Your task to perform on an android device: Open Google Maps and go to "Timeline" Image 0: 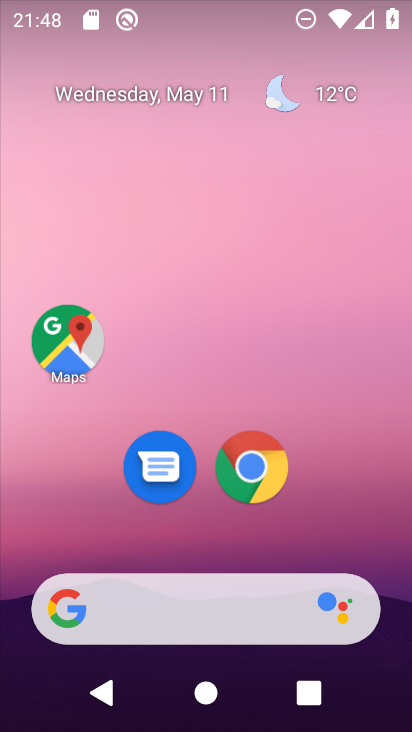
Step 0: drag from (211, 508) to (240, 80)
Your task to perform on an android device: Open Google Maps and go to "Timeline" Image 1: 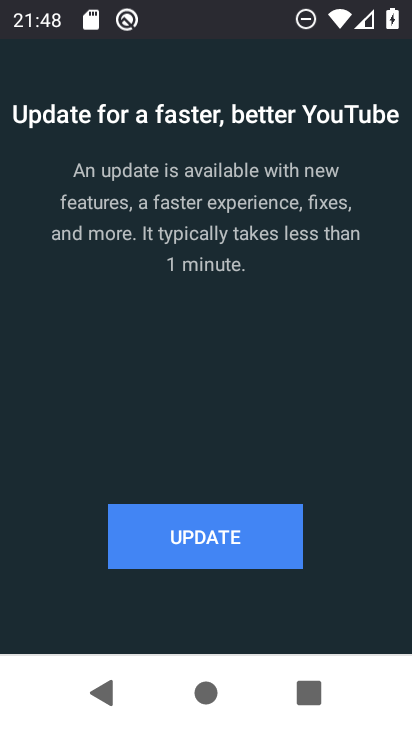
Step 1: press home button
Your task to perform on an android device: Open Google Maps and go to "Timeline" Image 2: 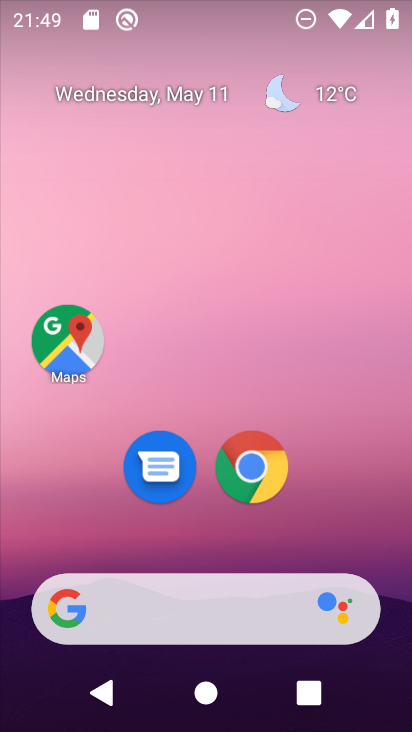
Step 2: drag from (210, 554) to (222, 79)
Your task to perform on an android device: Open Google Maps and go to "Timeline" Image 3: 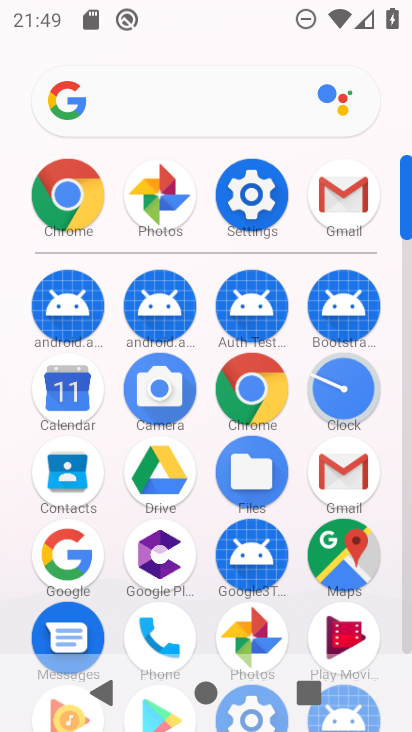
Step 3: click (347, 557)
Your task to perform on an android device: Open Google Maps and go to "Timeline" Image 4: 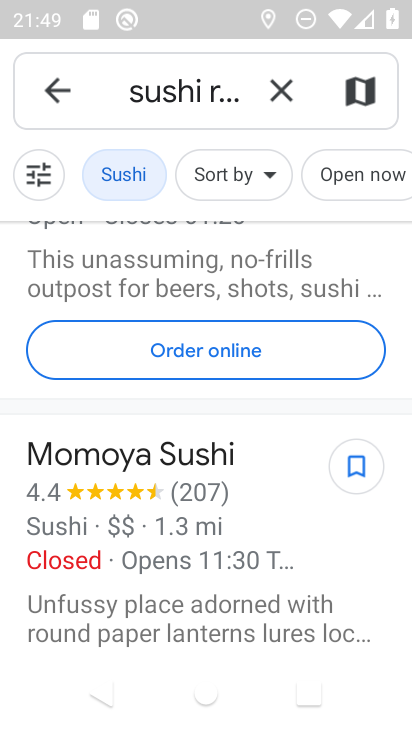
Step 4: click (277, 83)
Your task to perform on an android device: Open Google Maps and go to "Timeline" Image 5: 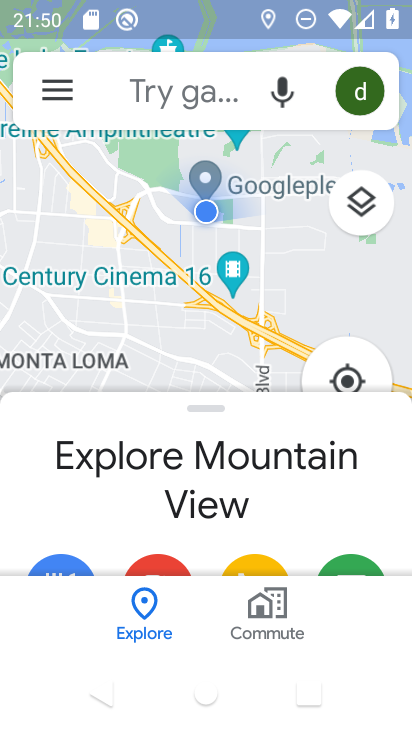
Step 5: click (58, 86)
Your task to perform on an android device: Open Google Maps and go to "Timeline" Image 6: 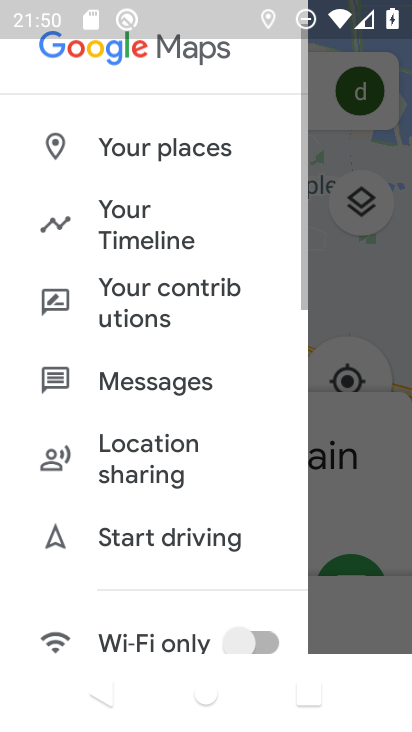
Step 6: click (145, 233)
Your task to perform on an android device: Open Google Maps and go to "Timeline" Image 7: 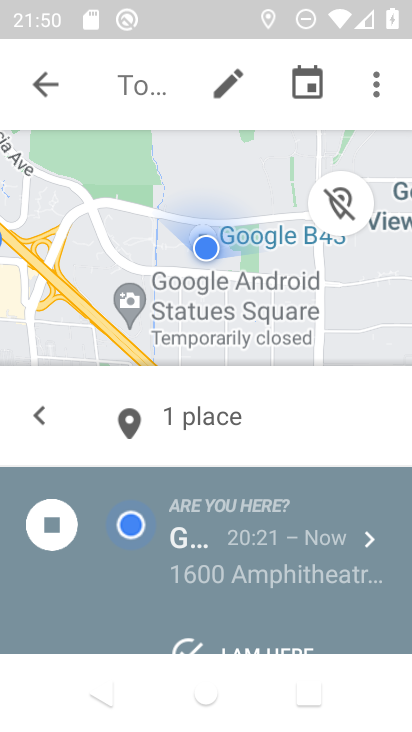
Step 7: task complete